Your task to perform on an android device: Search for Mexican restaurants on Maps Image 0: 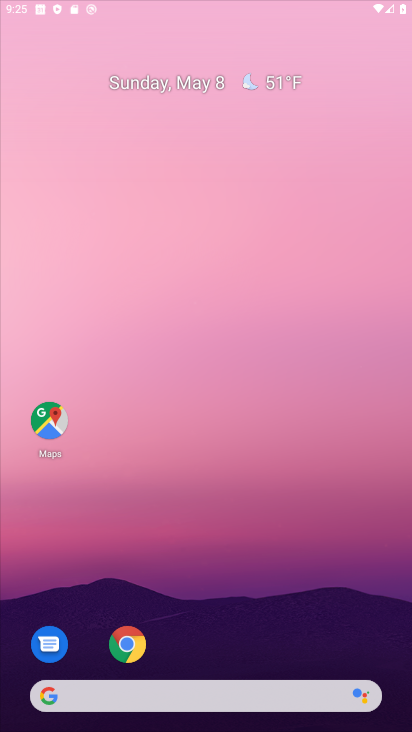
Step 0: click (262, 142)
Your task to perform on an android device: Search for Mexican restaurants on Maps Image 1: 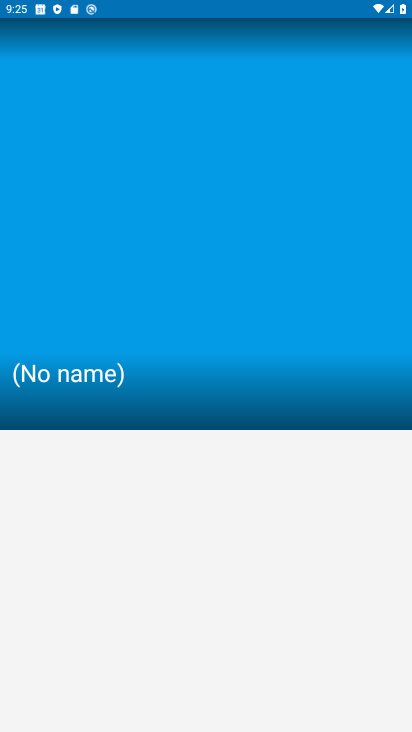
Step 1: drag from (201, 646) to (290, 21)
Your task to perform on an android device: Search for Mexican restaurants on Maps Image 2: 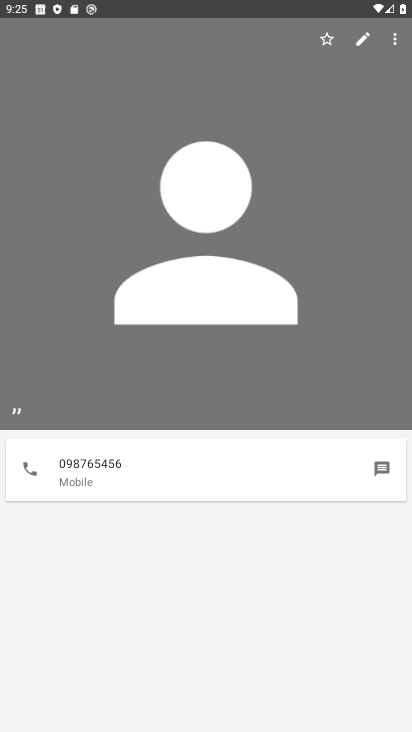
Step 2: press home button
Your task to perform on an android device: Search for Mexican restaurants on Maps Image 3: 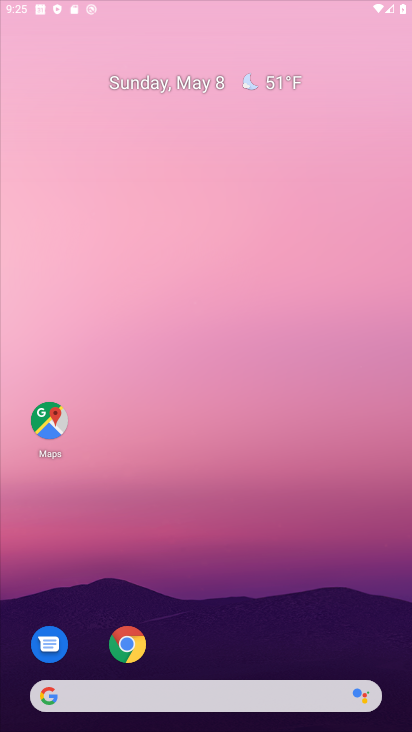
Step 3: drag from (227, 610) to (310, 223)
Your task to perform on an android device: Search for Mexican restaurants on Maps Image 4: 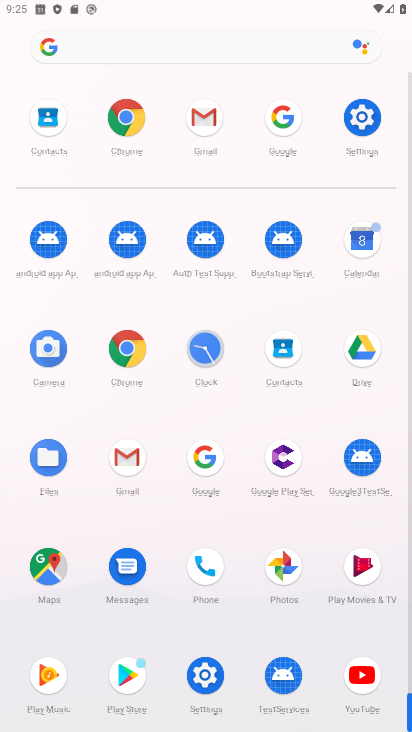
Step 4: click (63, 574)
Your task to perform on an android device: Search for Mexican restaurants on Maps Image 5: 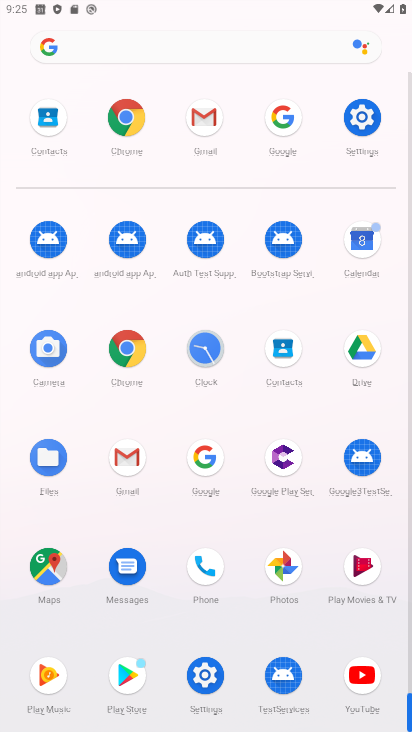
Step 5: click (39, 565)
Your task to perform on an android device: Search for Mexican restaurants on Maps Image 6: 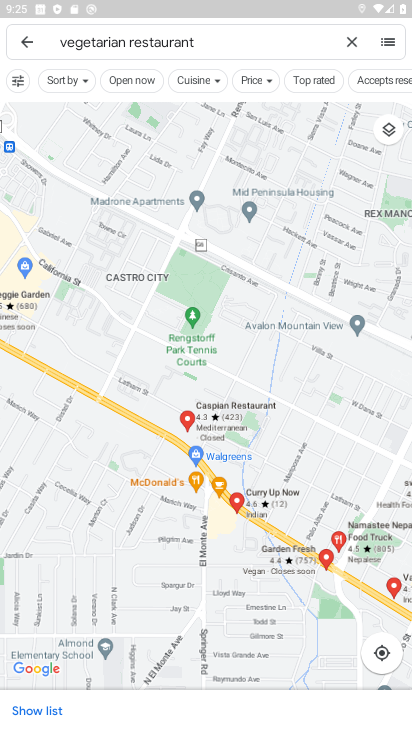
Step 6: drag from (177, 574) to (305, 257)
Your task to perform on an android device: Search for Mexican restaurants on Maps Image 7: 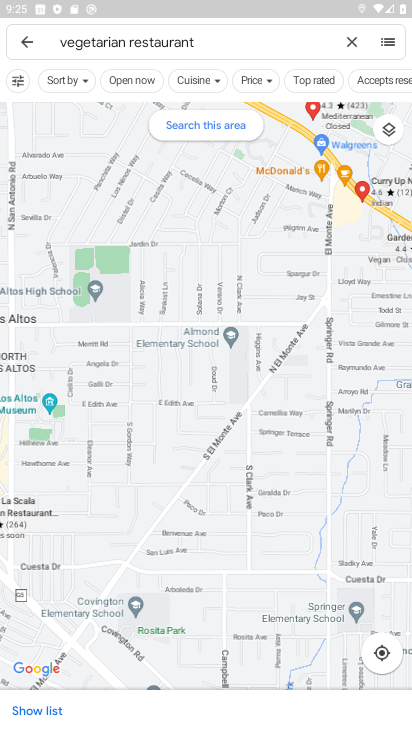
Step 7: drag from (178, 194) to (246, 519)
Your task to perform on an android device: Search for Mexican restaurants on Maps Image 8: 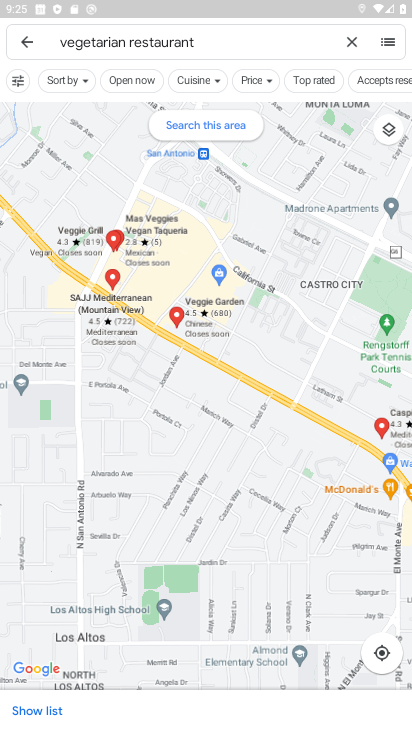
Step 8: drag from (197, 251) to (278, 577)
Your task to perform on an android device: Search for Mexican restaurants on Maps Image 9: 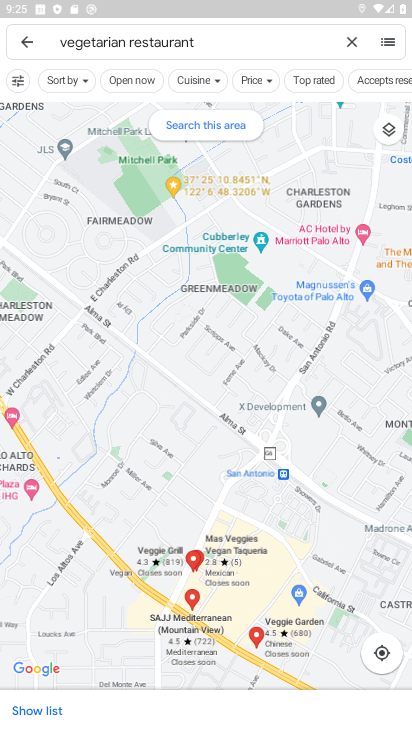
Step 9: click (347, 47)
Your task to perform on an android device: Search for Mexican restaurants on Maps Image 10: 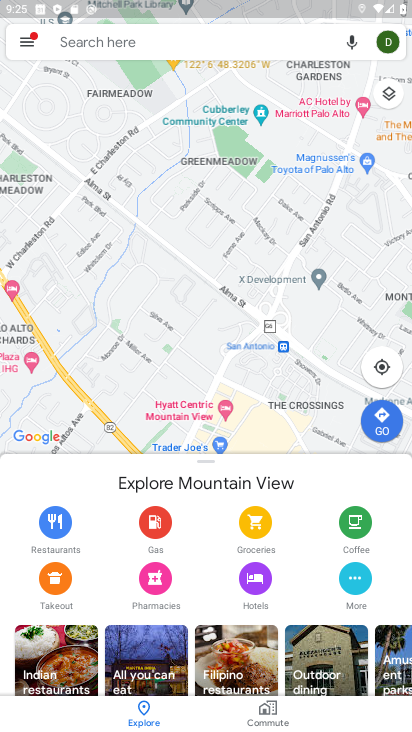
Step 10: click (177, 37)
Your task to perform on an android device: Search for Mexican restaurants on Maps Image 11: 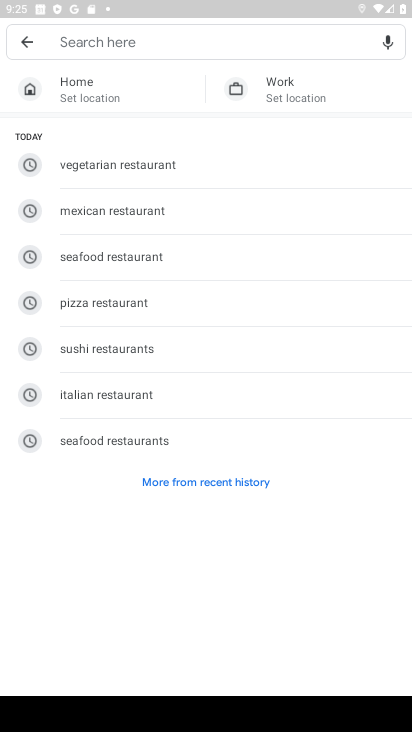
Step 11: click (131, 220)
Your task to perform on an android device: Search for Mexican restaurants on Maps Image 12: 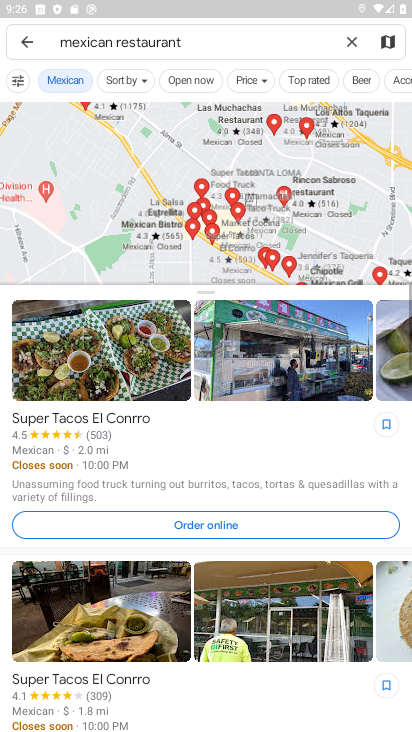
Step 12: task complete